Your task to perform on an android device: Open ESPN.com Image 0: 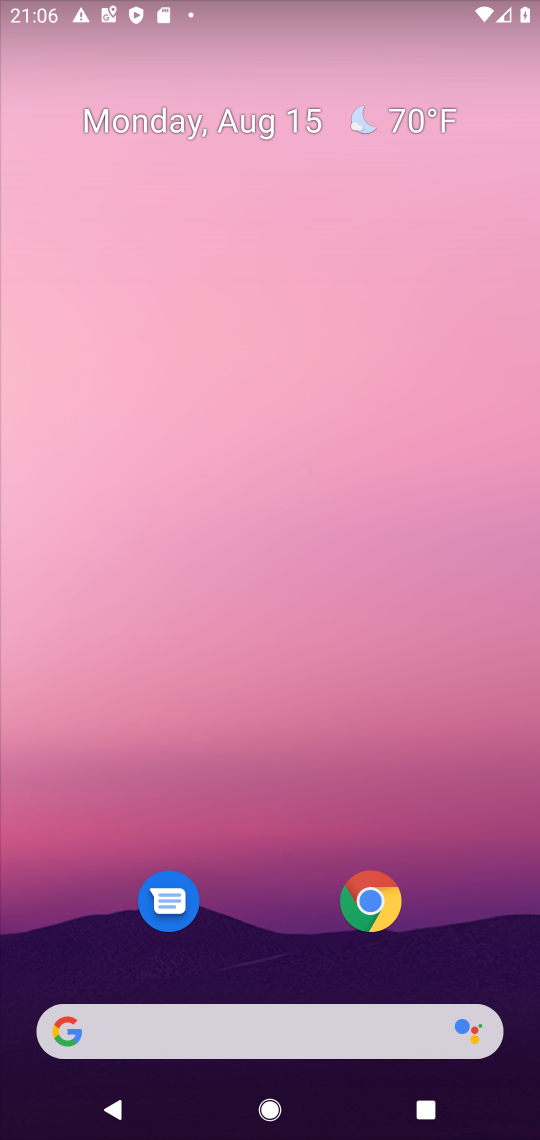
Step 0: click (362, 903)
Your task to perform on an android device: Open ESPN.com Image 1: 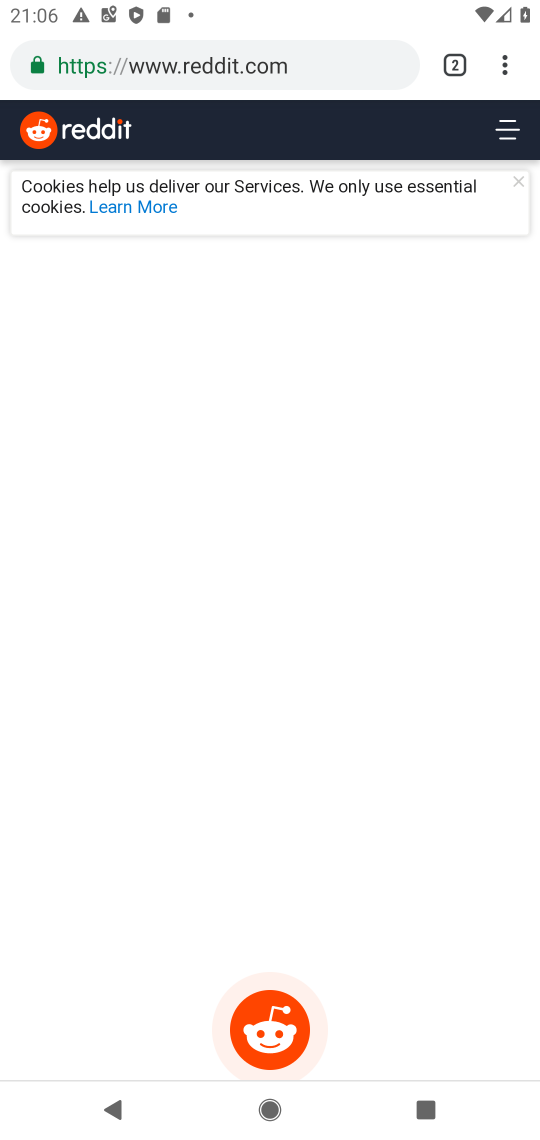
Step 1: click (274, 57)
Your task to perform on an android device: Open ESPN.com Image 2: 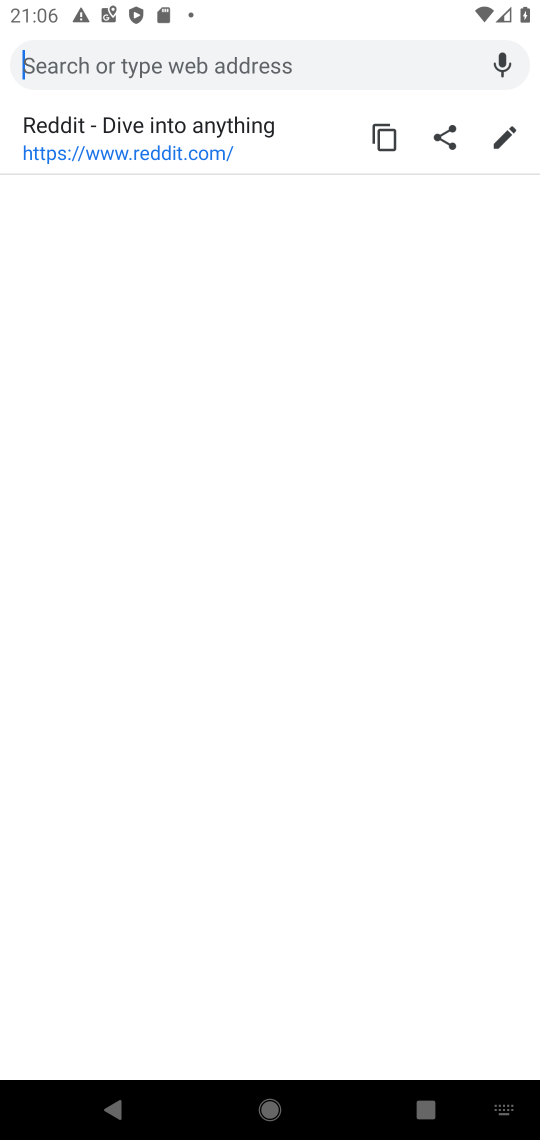
Step 2: type "ESPN.com"
Your task to perform on an android device: Open ESPN.com Image 3: 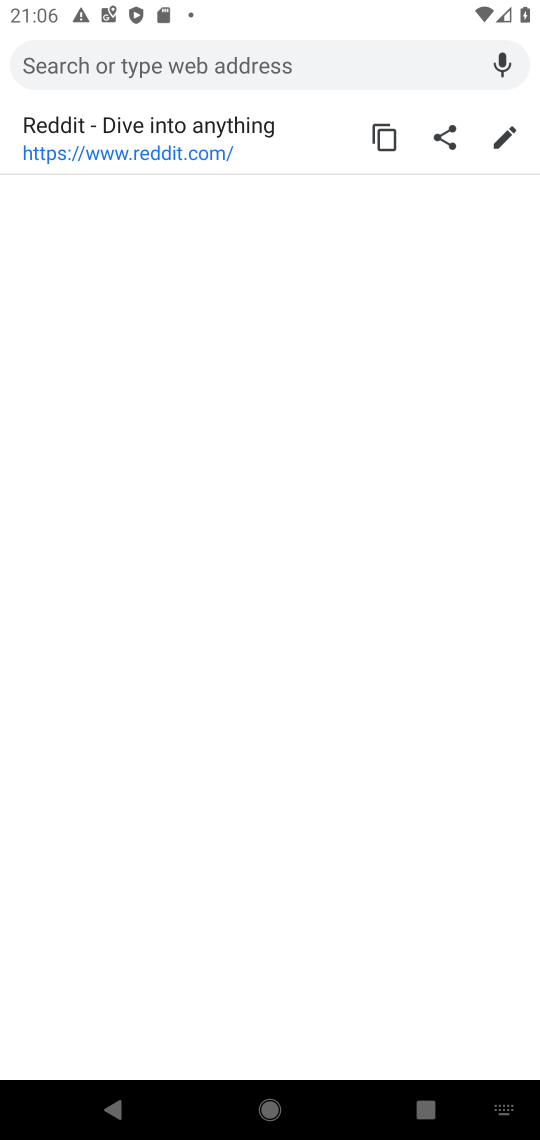
Step 3: click (146, 65)
Your task to perform on an android device: Open ESPN.com Image 4: 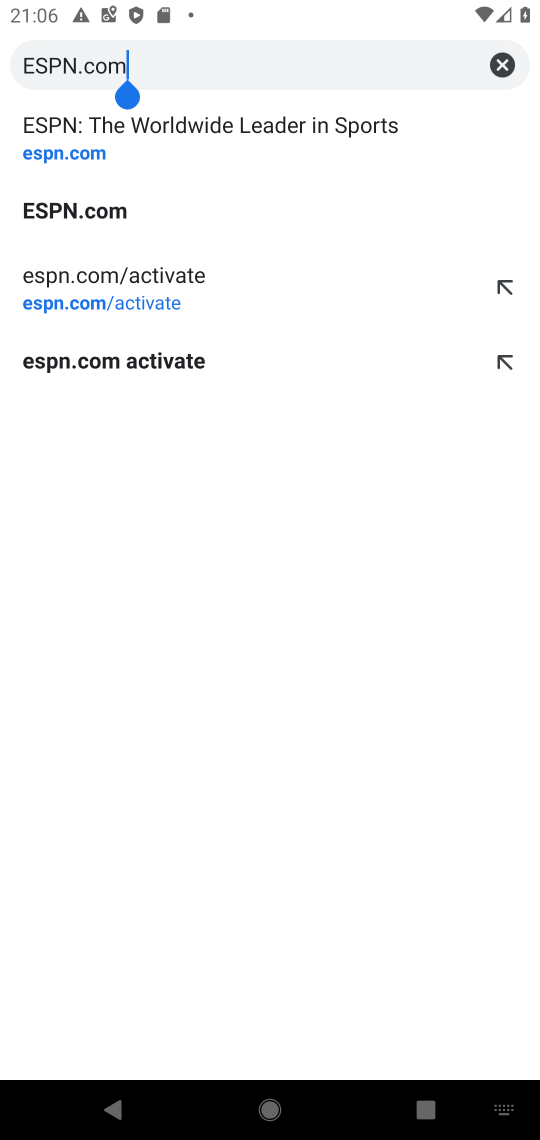
Step 4: click (96, 148)
Your task to perform on an android device: Open ESPN.com Image 5: 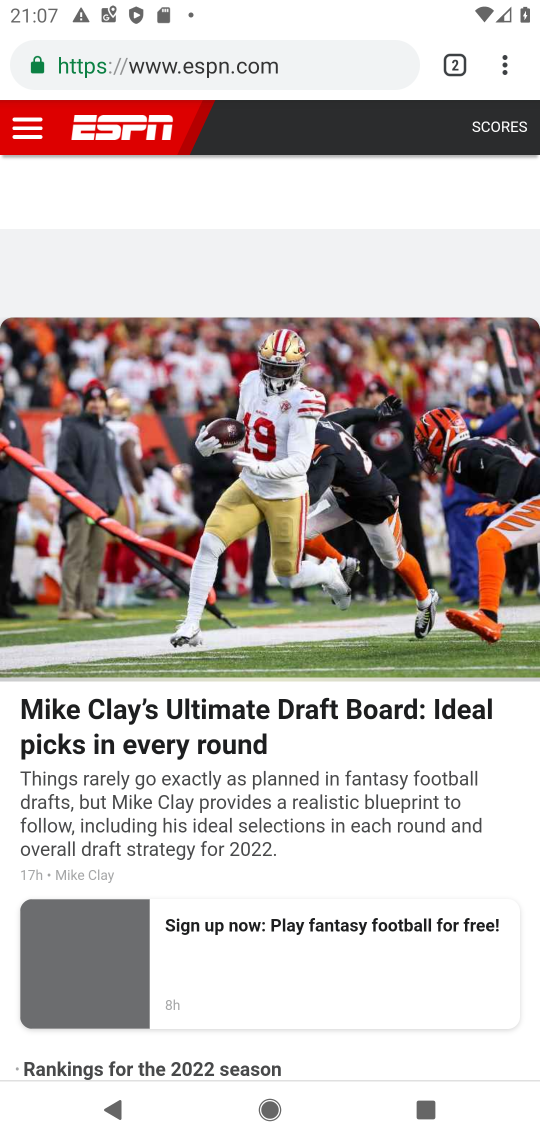
Step 5: task complete